Your task to perform on an android device: Do I have any events tomorrow? Image 0: 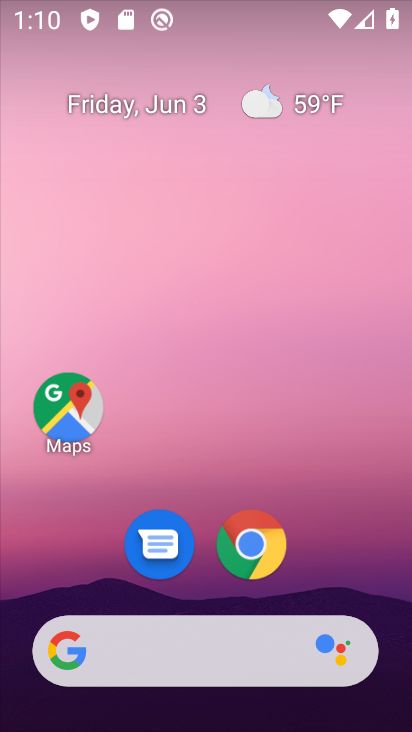
Step 0: drag from (202, 612) to (189, 4)
Your task to perform on an android device: Do I have any events tomorrow? Image 1: 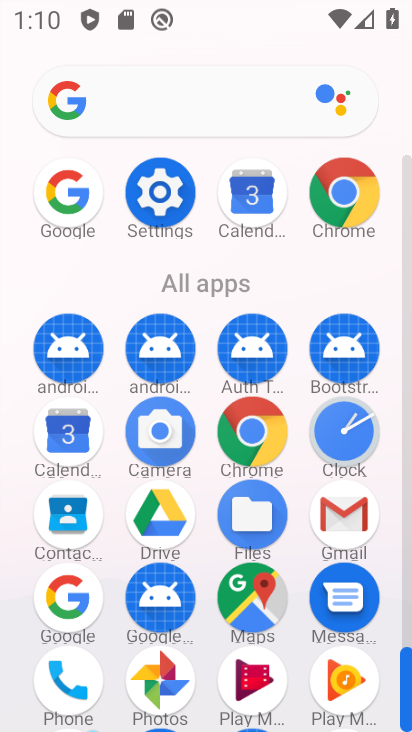
Step 1: click (57, 440)
Your task to perform on an android device: Do I have any events tomorrow? Image 2: 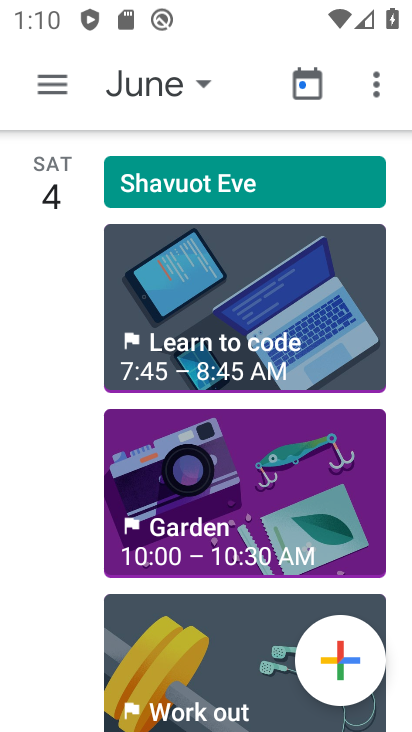
Step 2: click (54, 190)
Your task to perform on an android device: Do I have any events tomorrow? Image 3: 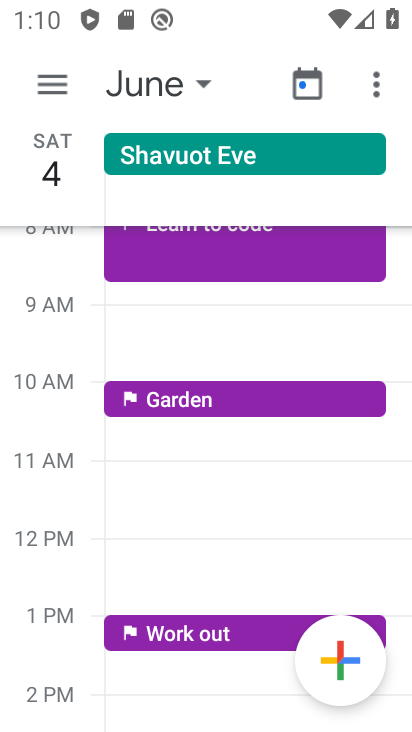
Step 3: task complete